Your task to perform on an android device: empty trash in the gmail app Image 0: 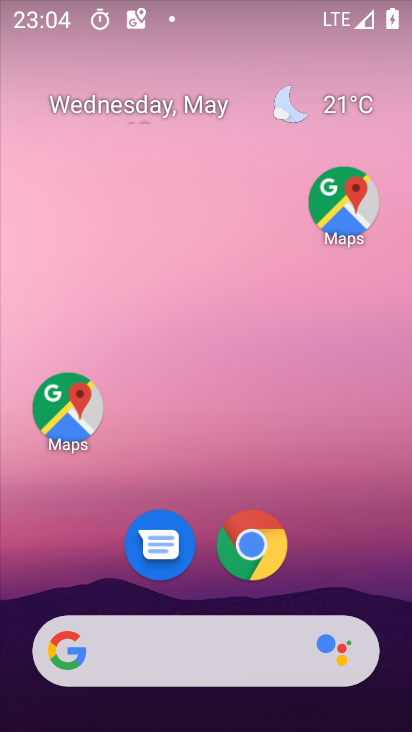
Step 0: drag from (322, 578) to (326, 0)
Your task to perform on an android device: empty trash in the gmail app Image 1: 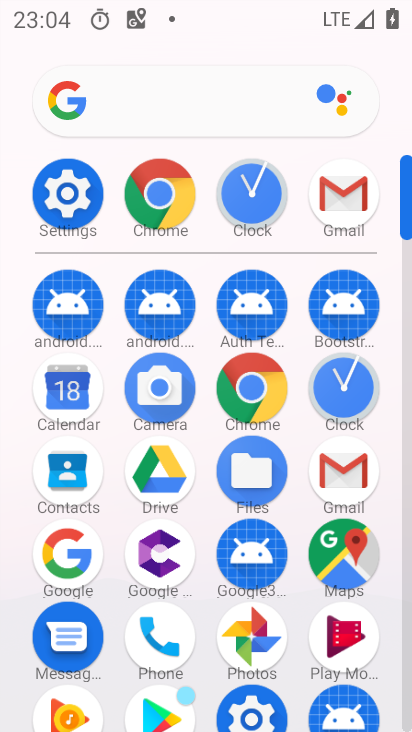
Step 1: click (345, 195)
Your task to perform on an android device: empty trash in the gmail app Image 2: 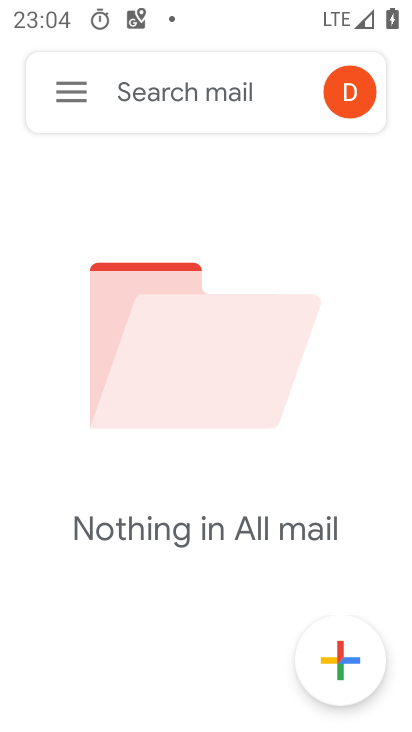
Step 2: click (65, 93)
Your task to perform on an android device: empty trash in the gmail app Image 3: 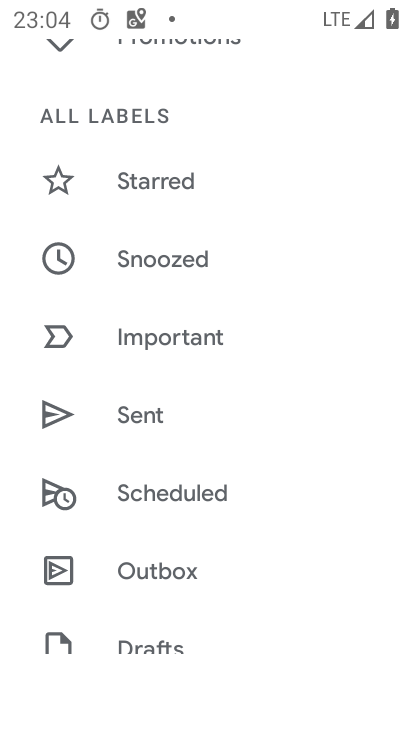
Step 3: drag from (184, 618) to (209, 210)
Your task to perform on an android device: empty trash in the gmail app Image 4: 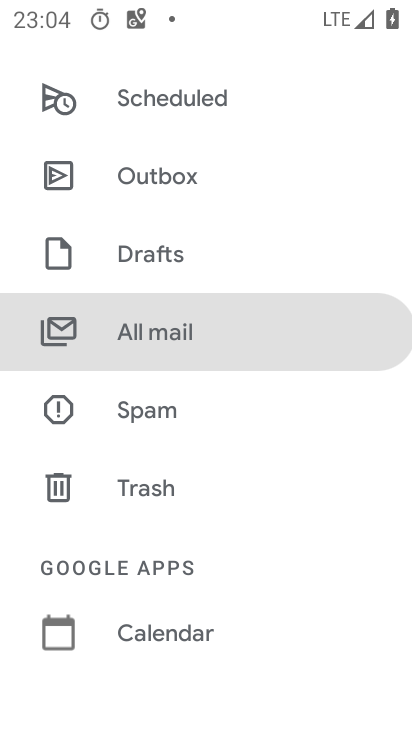
Step 4: click (159, 490)
Your task to perform on an android device: empty trash in the gmail app Image 5: 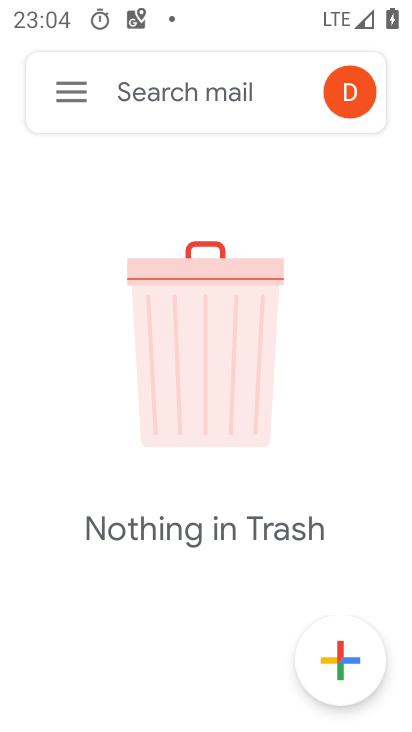
Step 5: task complete